Your task to perform on an android device: Open internet settings Image 0: 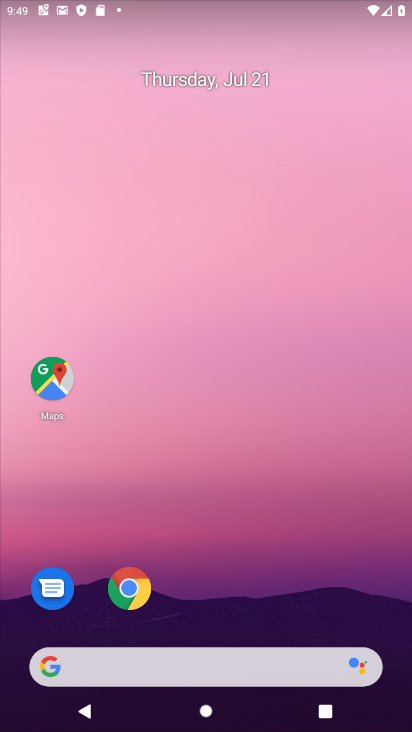
Step 0: drag from (214, 535) to (265, 50)
Your task to perform on an android device: Open internet settings Image 1: 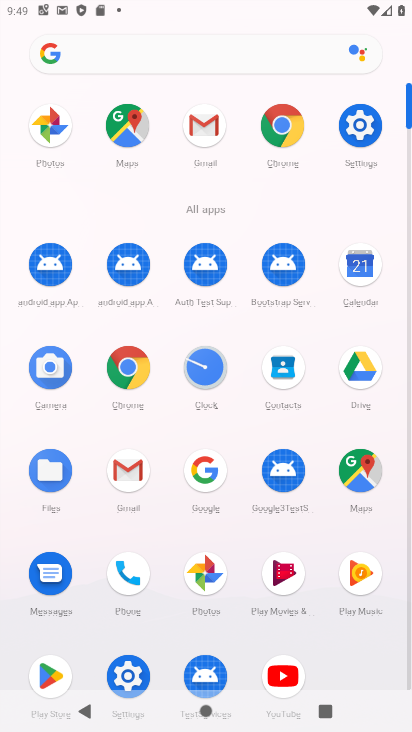
Step 1: click (361, 131)
Your task to perform on an android device: Open internet settings Image 2: 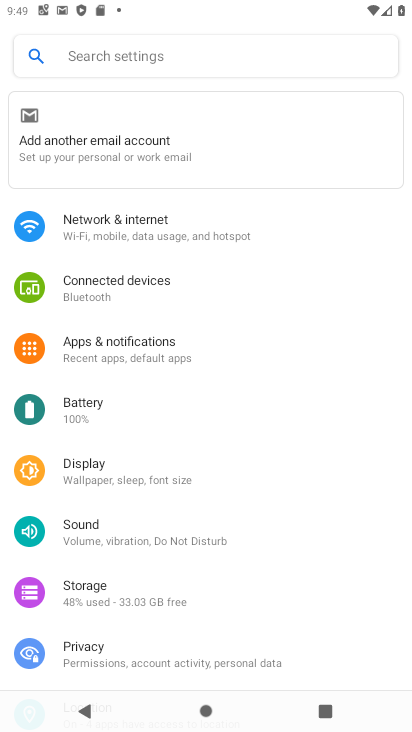
Step 2: click (136, 229)
Your task to perform on an android device: Open internet settings Image 3: 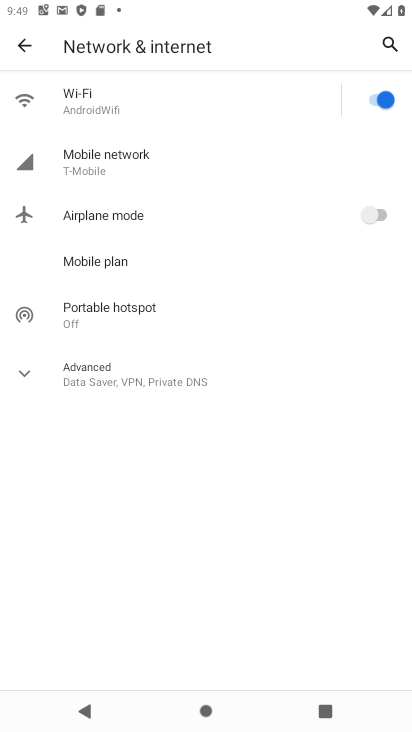
Step 3: task complete